Your task to perform on an android device: move an email to a new category in the gmail app Image 0: 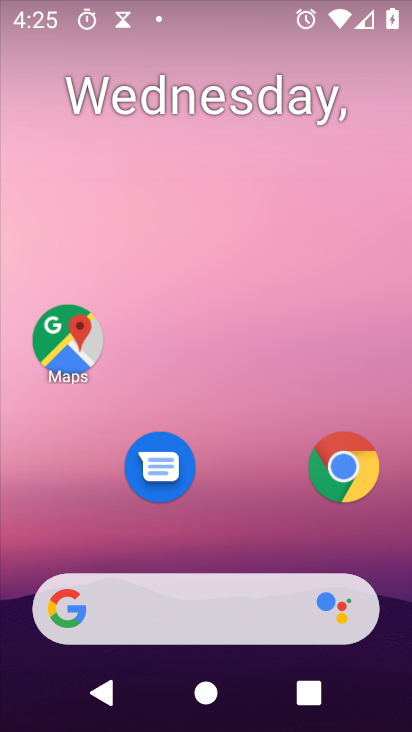
Step 0: drag from (258, 511) to (197, 72)
Your task to perform on an android device: move an email to a new category in the gmail app Image 1: 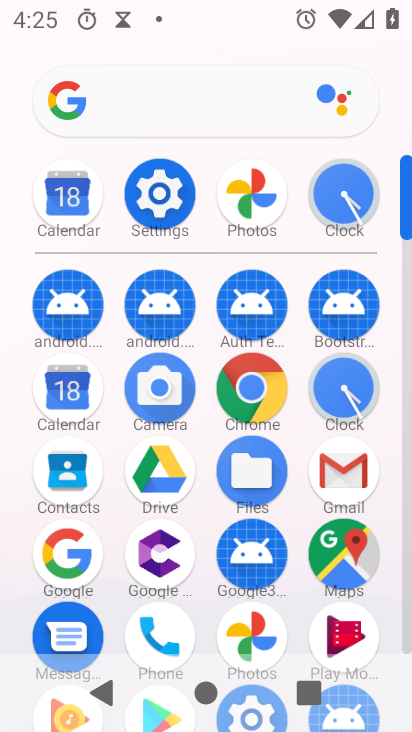
Step 1: click (357, 480)
Your task to perform on an android device: move an email to a new category in the gmail app Image 2: 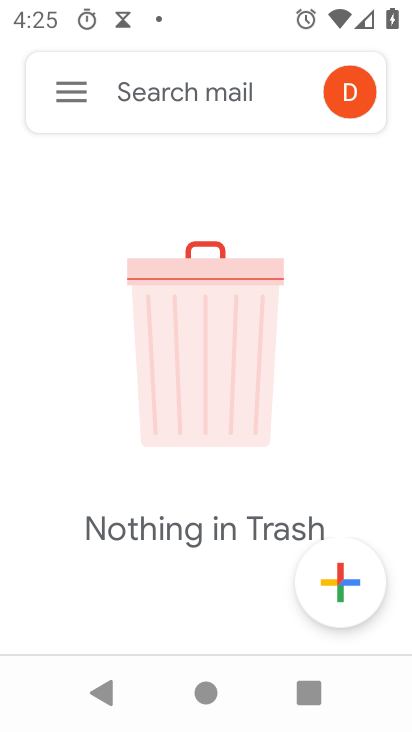
Step 2: click (71, 99)
Your task to perform on an android device: move an email to a new category in the gmail app Image 3: 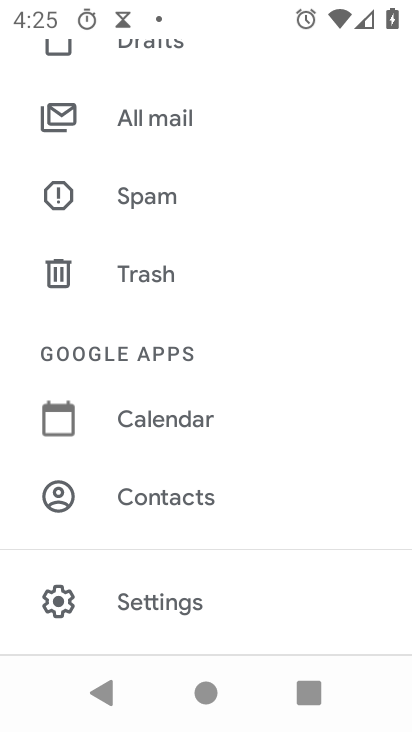
Step 3: drag from (207, 286) to (218, 725)
Your task to perform on an android device: move an email to a new category in the gmail app Image 4: 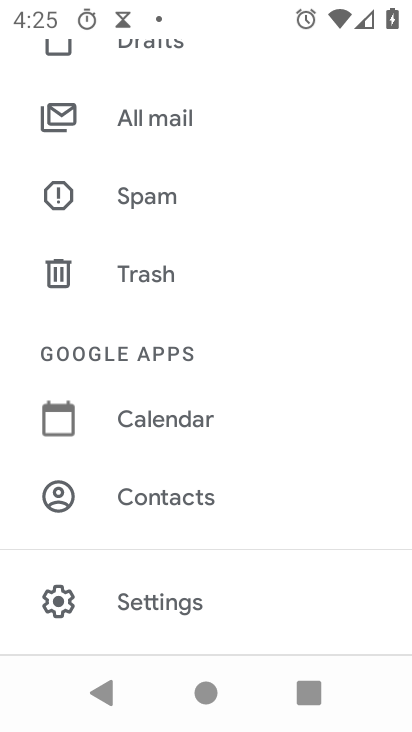
Step 4: drag from (296, 361) to (287, 535)
Your task to perform on an android device: move an email to a new category in the gmail app Image 5: 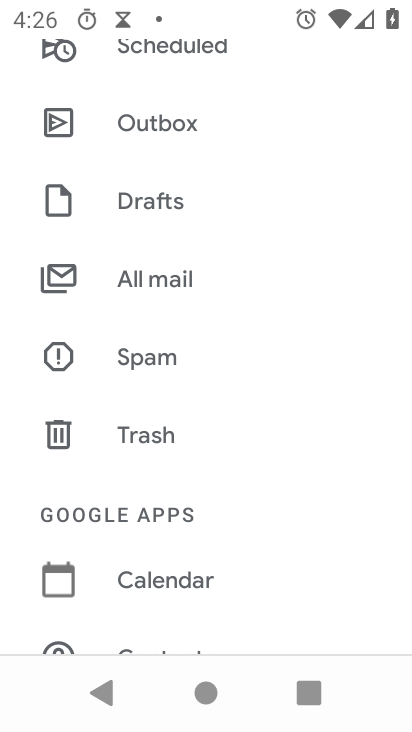
Step 5: click (253, 260)
Your task to perform on an android device: move an email to a new category in the gmail app Image 6: 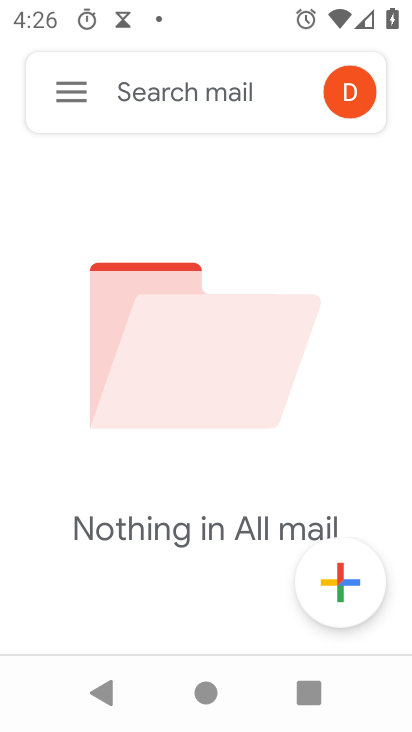
Step 6: task complete